Your task to perform on an android device: Find coffee shops on Maps Image 0: 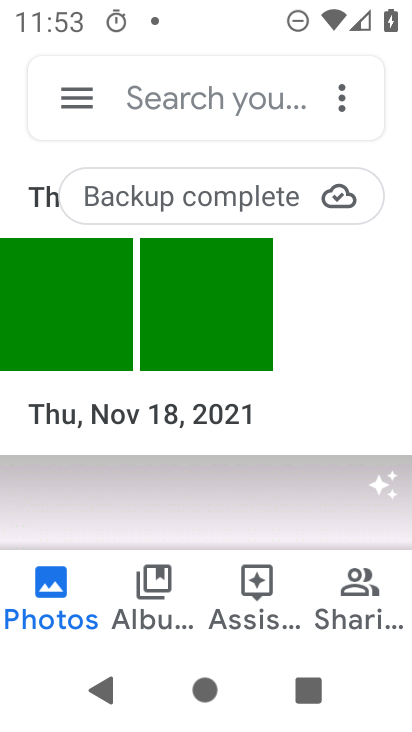
Step 0: press back button
Your task to perform on an android device: Find coffee shops on Maps Image 1: 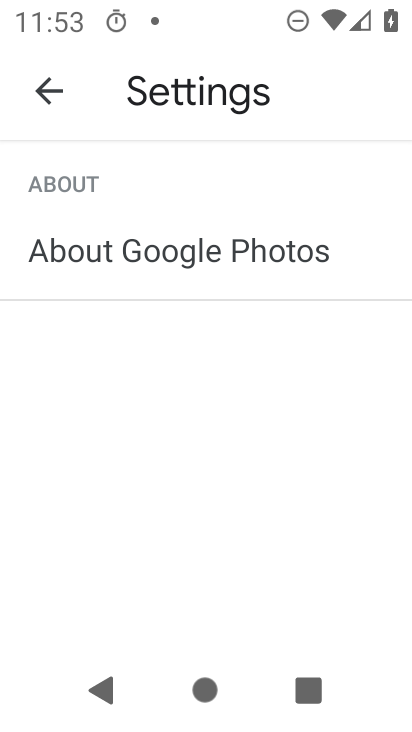
Step 1: press back button
Your task to perform on an android device: Find coffee shops on Maps Image 2: 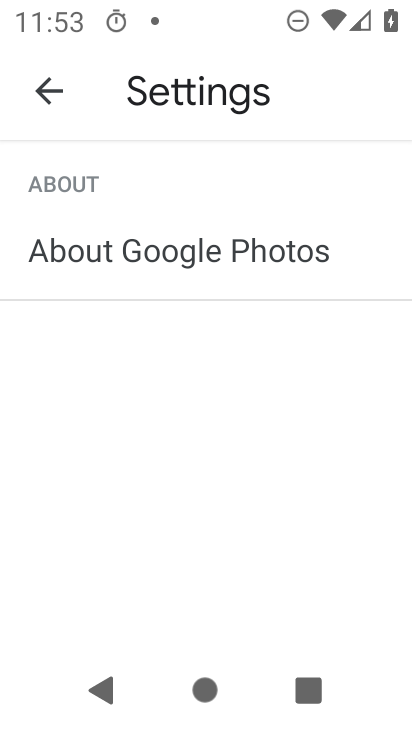
Step 2: press back button
Your task to perform on an android device: Find coffee shops on Maps Image 3: 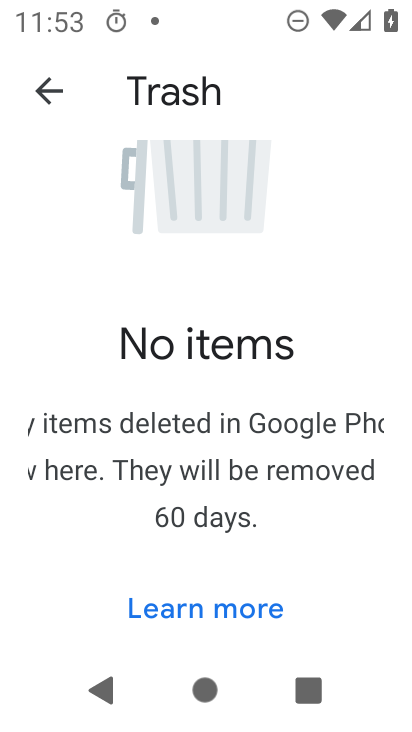
Step 3: press back button
Your task to perform on an android device: Find coffee shops on Maps Image 4: 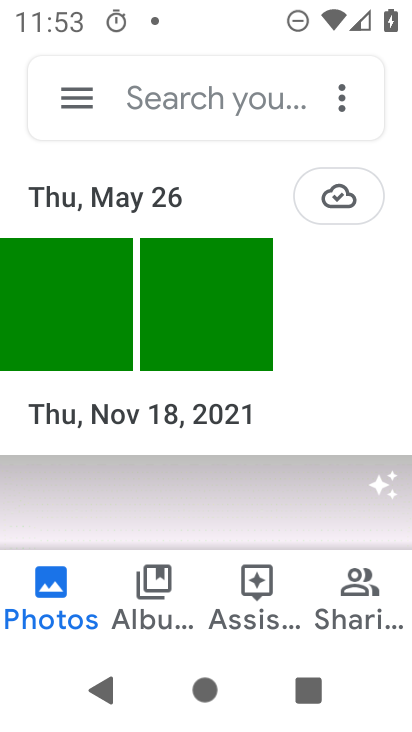
Step 4: press back button
Your task to perform on an android device: Find coffee shops on Maps Image 5: 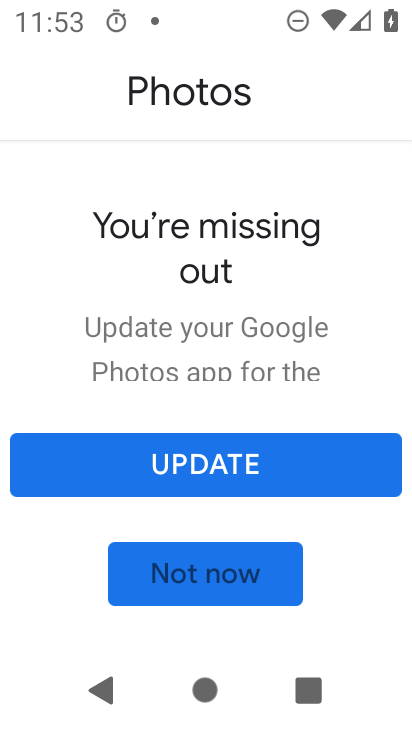
Step 5: press home button
Your task to perform on an android device: Find coffee shops on Maps Image 6: 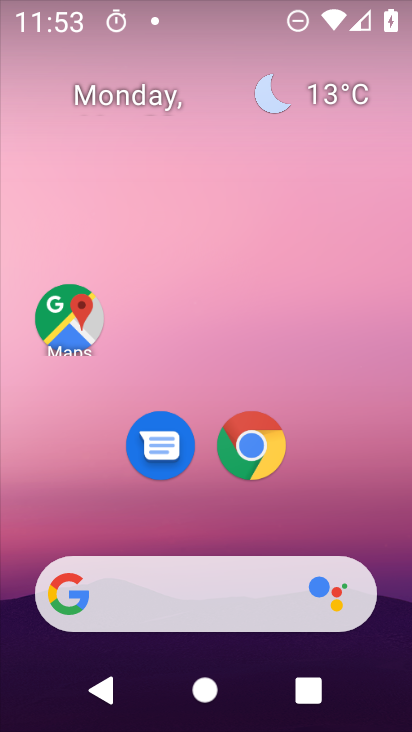
Step 6: click (72, 313)
Your task to perform on an android device: Find coffee shops on Maps Image 7: 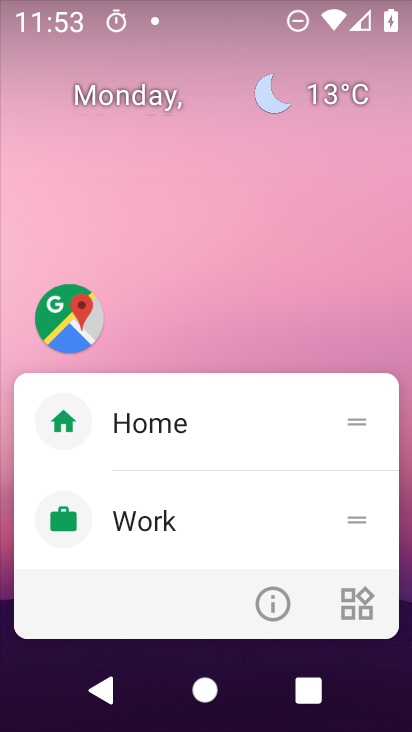
Step 7: click (72, 313)
Your task to perform on an android device: Find coffee shops on Maps Image 8: 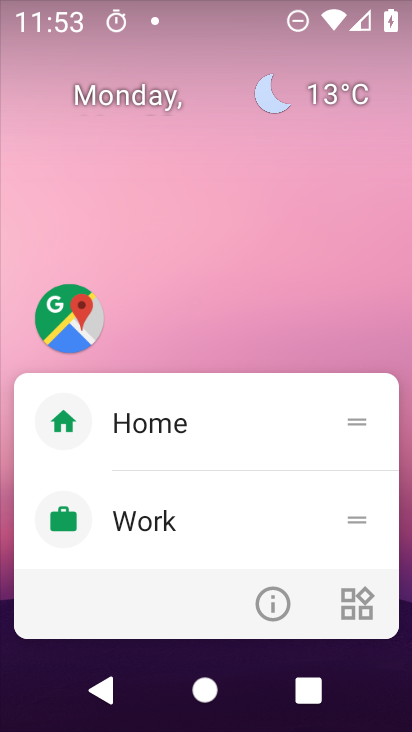
Step 8: click (72, 313)
Your task to perform on an android device: Find coffee shops on Maps Image 9: 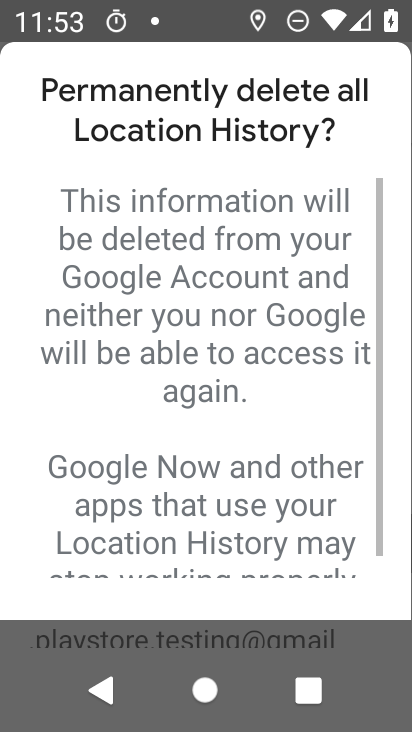
Step 9: press back button
Your task to perform on an android device: Find coffee shops on Maps Image 10: 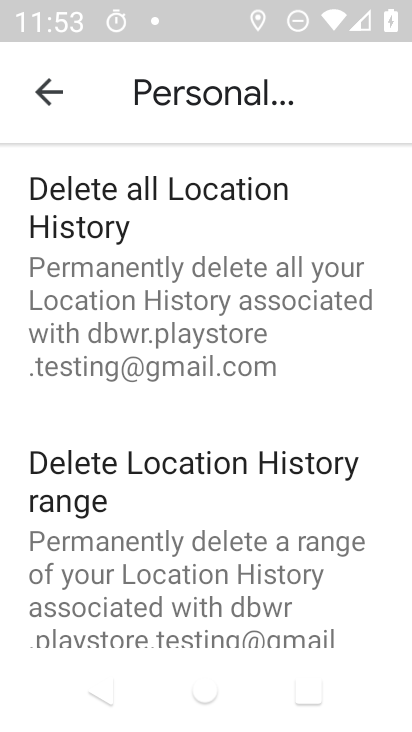
Step 10: click (60, 76)
Your task to perform on an android device: Find coffee shops on Maps Image 11: 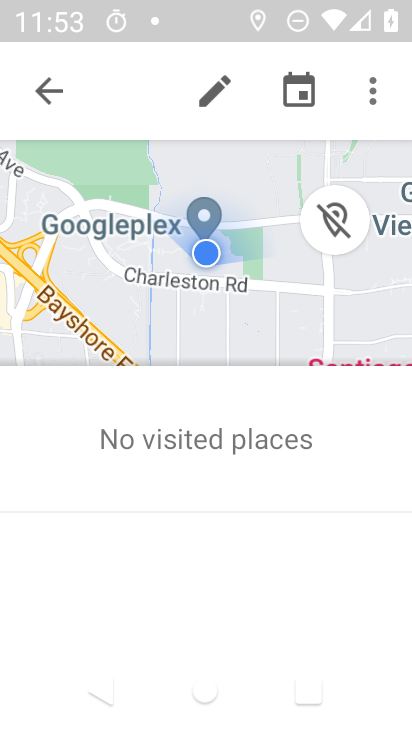
Step 11: click (46, 83)
Your task to perform on an android device: Find coffee shops on Maps Image 12: 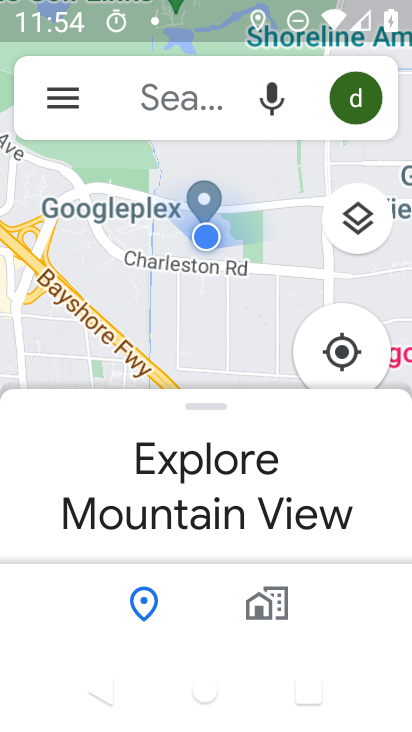
Step 12: click (151, 90)
Your task to perform on an android device: Find coffee shops on Maps Image 13: 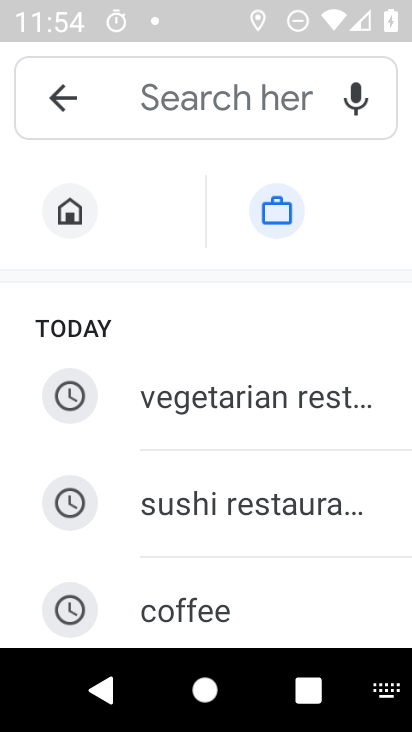
Step 13: type "coffee shops"
Your task to perform on an android device: Find coffee shops on Maps Image 14: 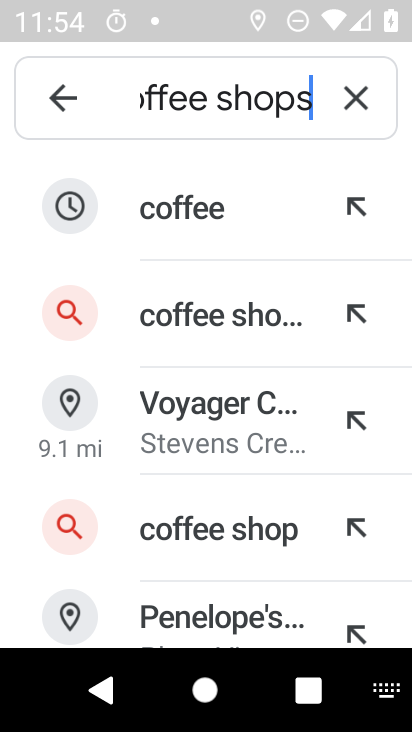
Step 14: click (247, 315)
Your task to perform on an android device: Find coffee shops on Maps Image 15: 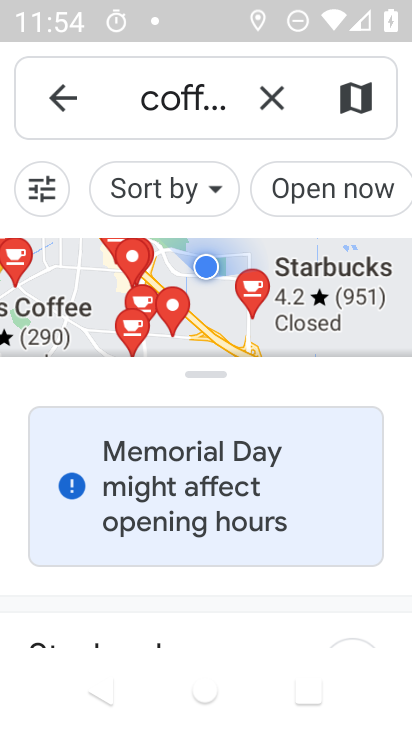
Step 15: task complete